Your task to perform on an android device: install app "DoorDash - Food Delivery" Image 0: 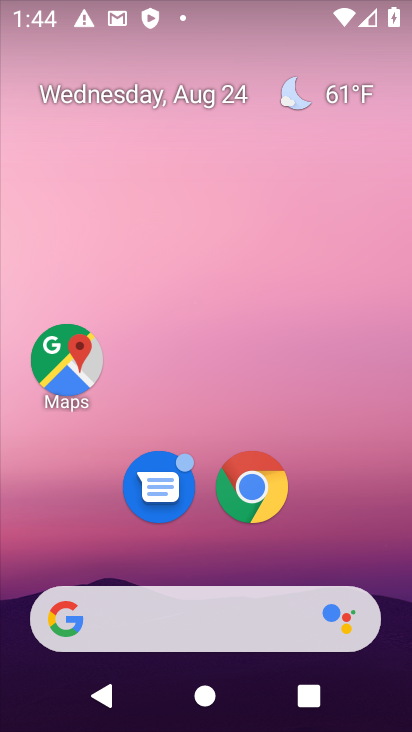
Step 0: drag from (208, 617) to (264, 141)
Your task to perform on an android device: install app "DoorDash - Food Delivery" Image 1: 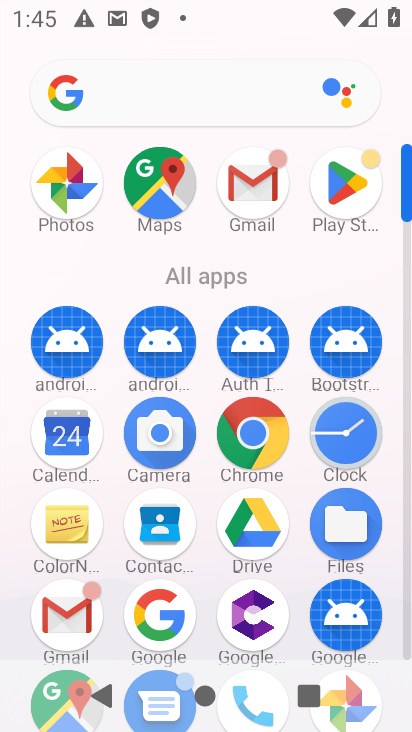
Step 1: click (350, 182)
Your task to perform on an android device: install app "DoorDash - Food Delivery" Image 2: 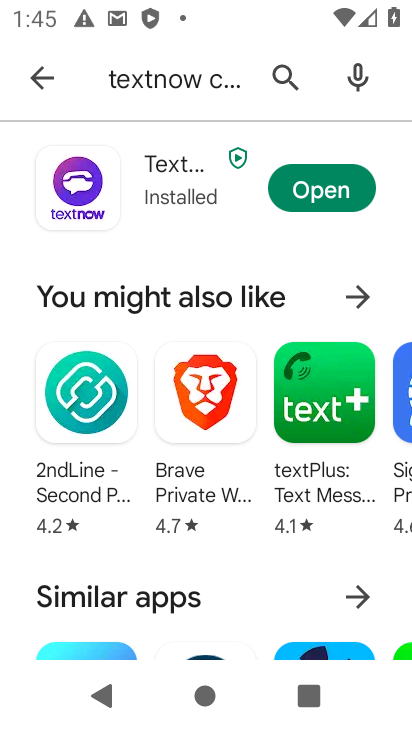
Step 2: press back button
Your task to perform on an android device: install app "DoorDash - Food Delivery" Image 3: 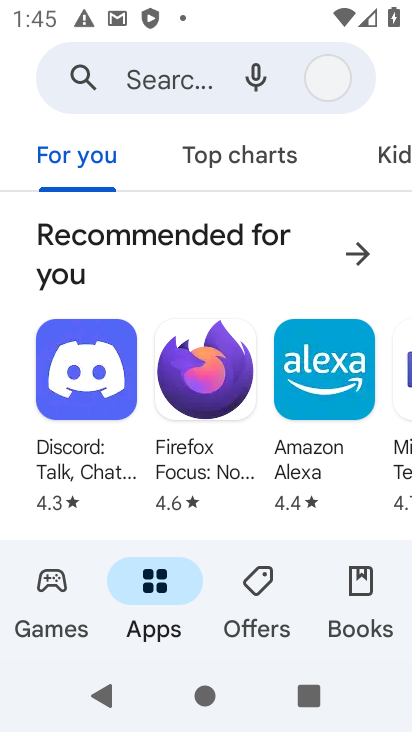
Step 3: click (186, 81)
Your task to perform on an android device: install app "DoorDash - Food Delivery" Image 4: 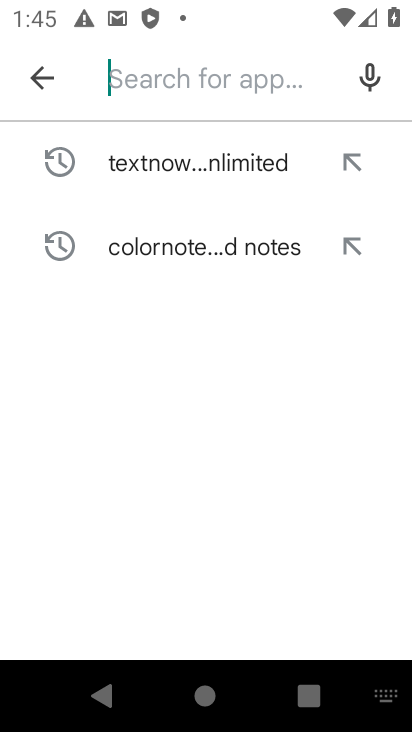
Step 4: type "DoorDash - Food Delivery"
Your task to perform on an android device: install app "DoorDash - Food Delivery" Image 5: 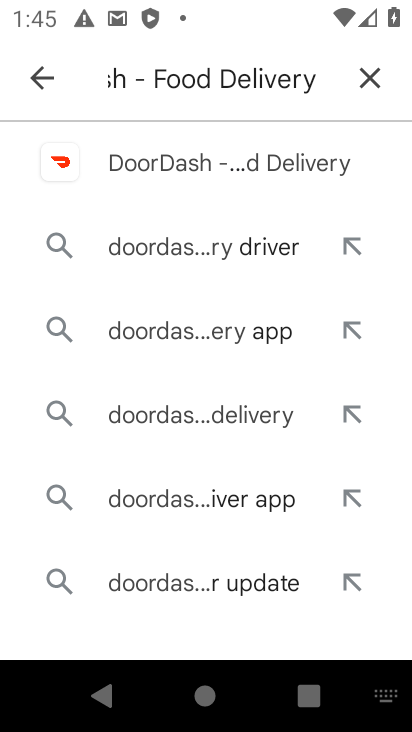
Step 5: click (297, 160)
Your task to perform on an android device: install app "DoorDash - Food Delivery" Image 6: 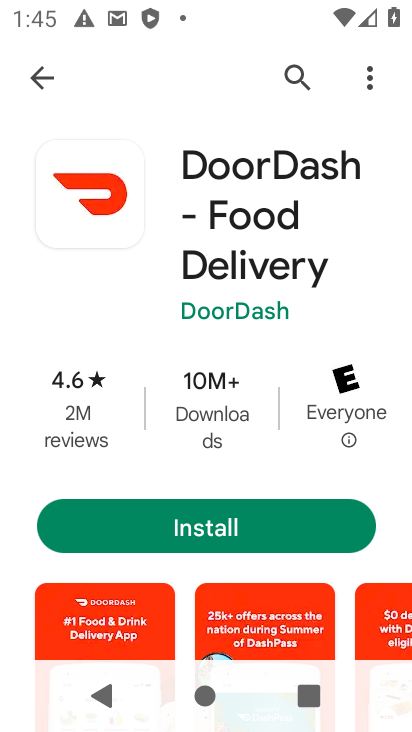
Step 6: click (247, 515)
Your task to perform on an android device: install app "DoorDash - Food Delivery" Image 7: 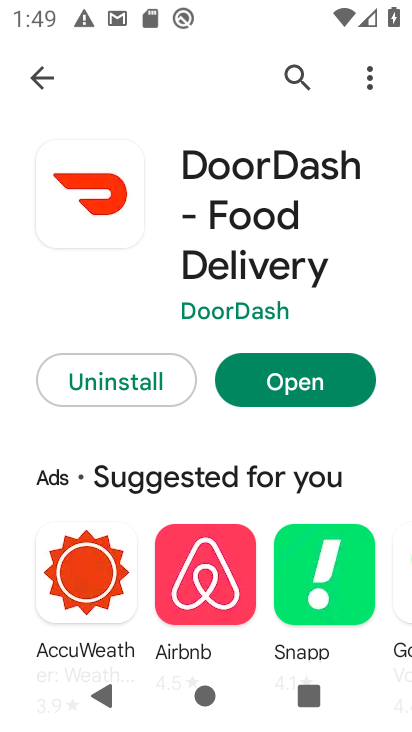
Step 7: task complete